Your task to perform on an android device: clear all cookies in the chrome app Image 0: 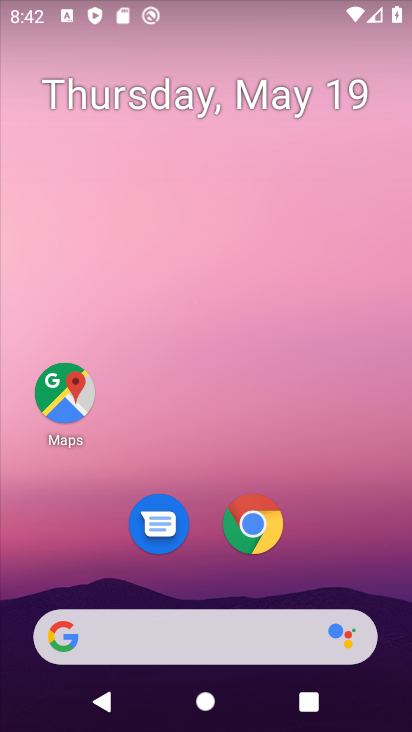
Step 0: click (272, 518)
Your task to perform on an android device: clear all cookies in the chrome app Image 1: 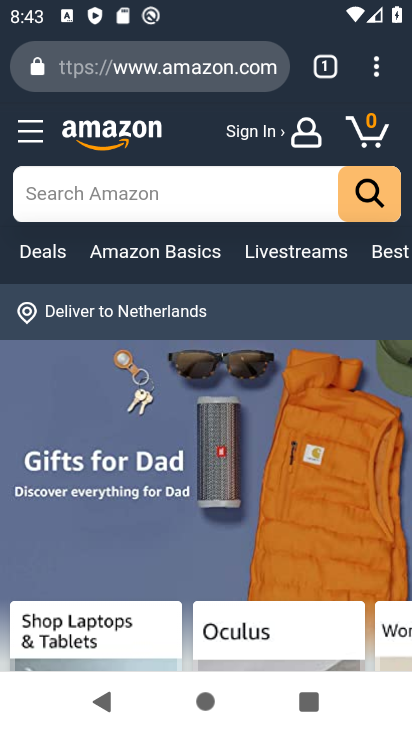
Step 1: click (374, 71)
Your task to perform on an android device: clear all cookies in the chrome app Image 2: 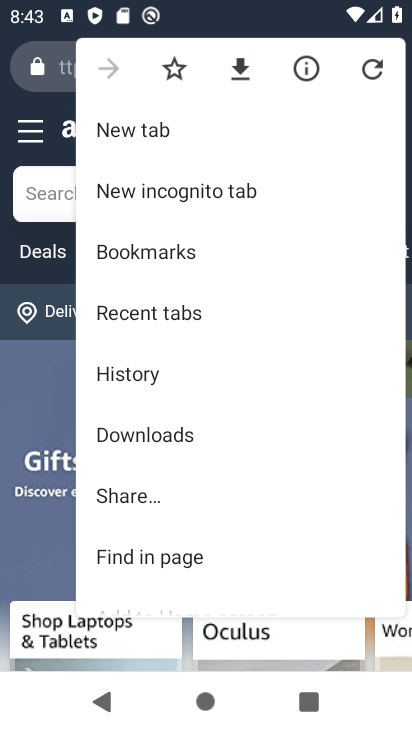
Step 2: drag from (233, 528) to (242, 210)
Your task to perform on an android device: clear all cookies in the chrome app Image 3: 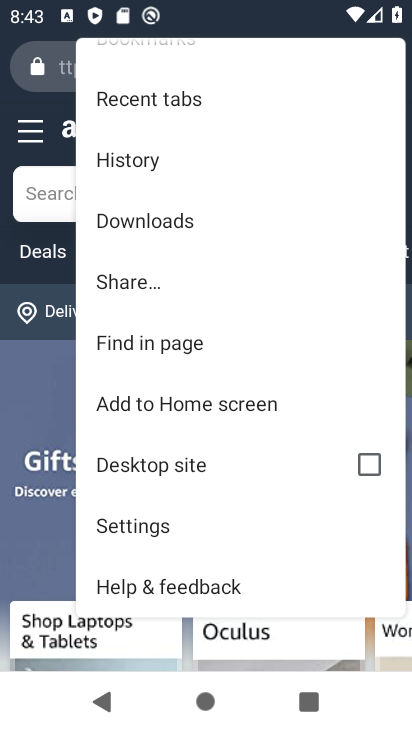
Step 3: click (190, 519)
Your task to perform on an android device: clear all cookies in the chrome app Image 4: 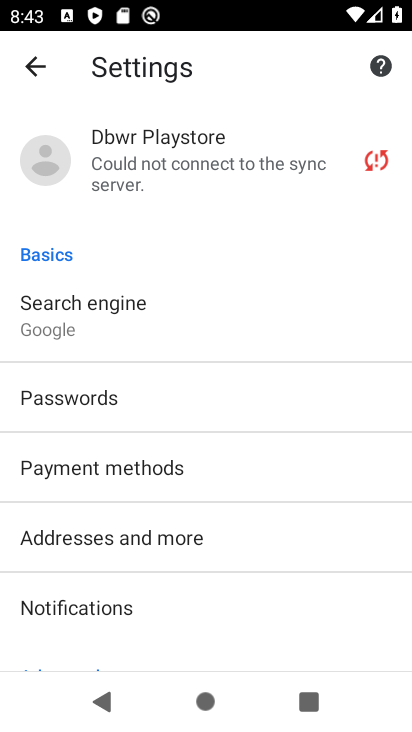
Step 4: drag from (281, 518) to (286, 275)
Your task to perform on an android device: clear all cookies in the chrome app Image 5: 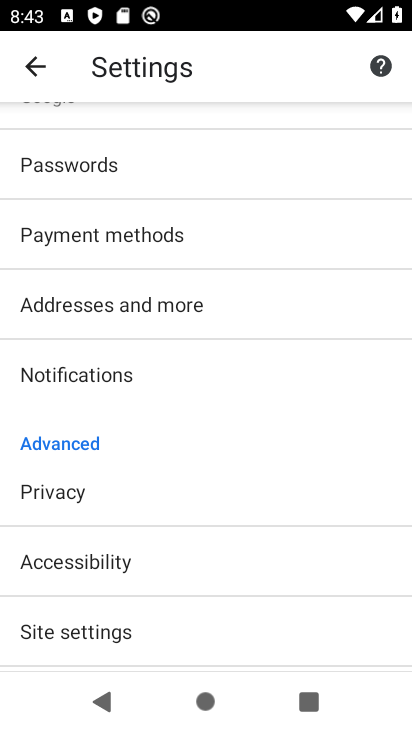
Step 5: click (98, 492)
Your task to perform on an android device: clear all cookies in the chrome app Image 6: 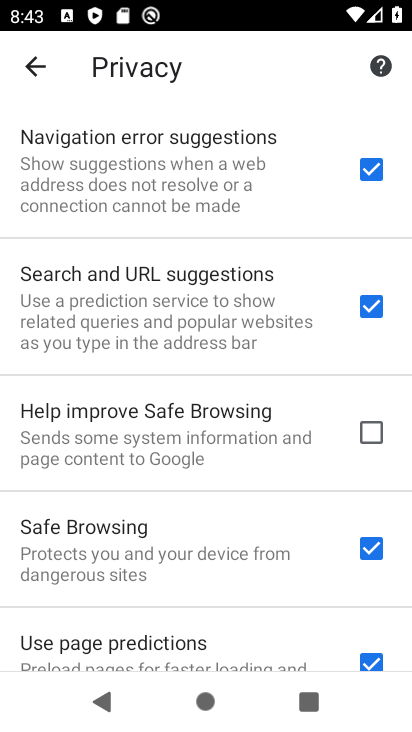
Step 6: drag from (264, 554) to (280, 196)
Your task to perform on an android device: clear all cookies in the chrome app Image 7: 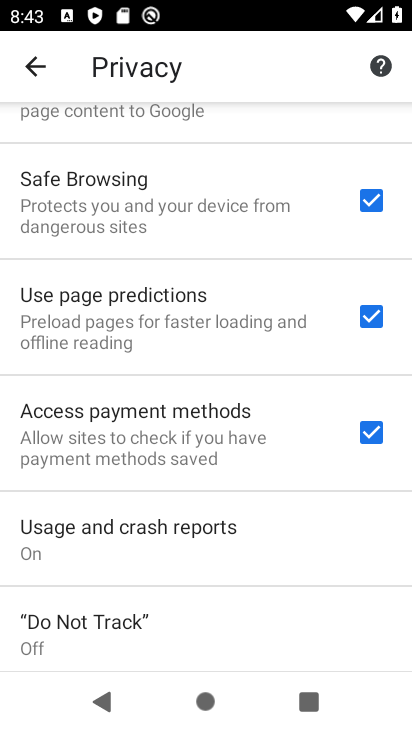
Step 7: drag from (195, 486) to (198, 182)
Your task to perform on an android device: clear all cookies in the chrome app Image 8: 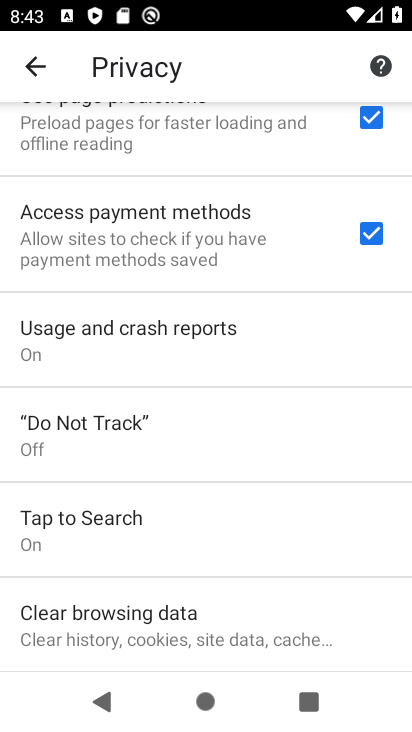
Step 8: click (171, 633)
Your task to perform on an android device: clear all cookies in the chrome app Image 9: 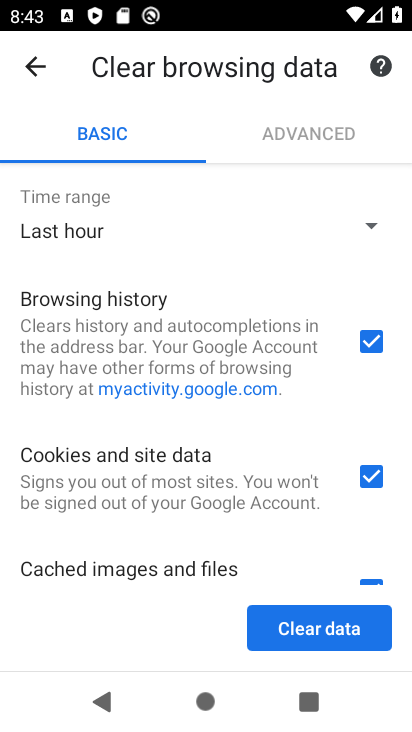
Step 9: click (372, 343)
Your task to perform on an android device: clear all cookies in the chrome app Image 10: 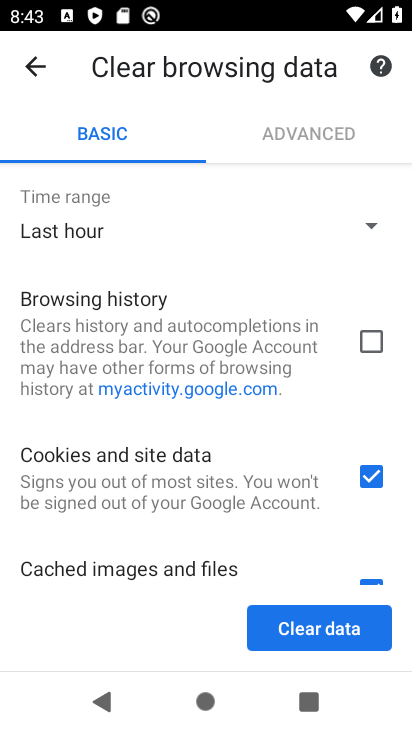
Step 10: drag from (331, 542) to (314, 363)
Your task to perform on an android device: clear all cookies in the chrome app Image 11: 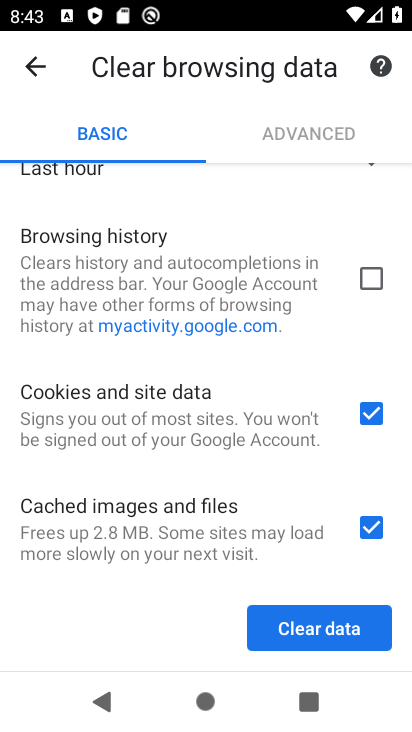
Step 11: click (373, 525)
Your task to perform on an android device: clear all cookies in the chrome app Image 12: 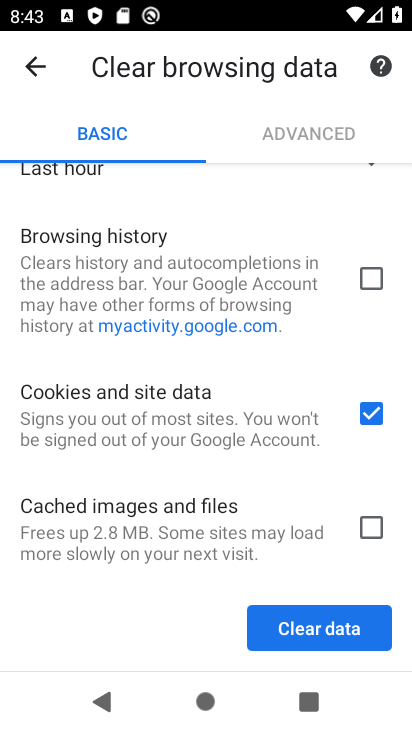
Step 12: click (358, 622)
Your task to perform on an android device: clear all cookies in the chrome app Image 13: 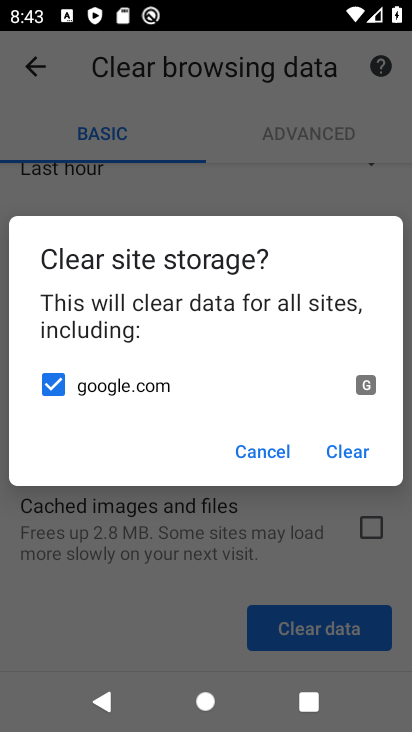
Step 13: click (353, 448)
Your task to perform on an android device: clear all cookies in the chrome app Image 14: 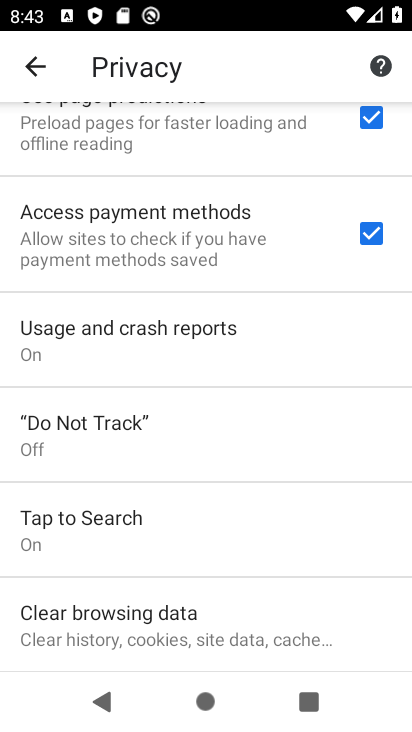
Step 14: task complete